Your task to perform on an android device: turn on showing notifications on the lock screen Image 0: 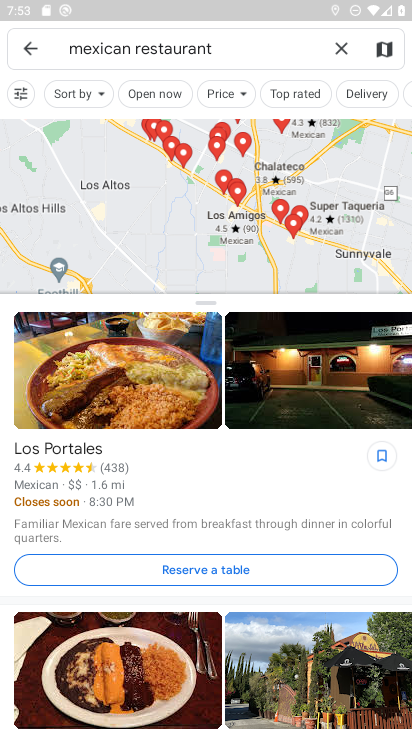
Step 0: press home button
Your task to perform on an android device: turn on showing notifications on the lock screen Image 1: 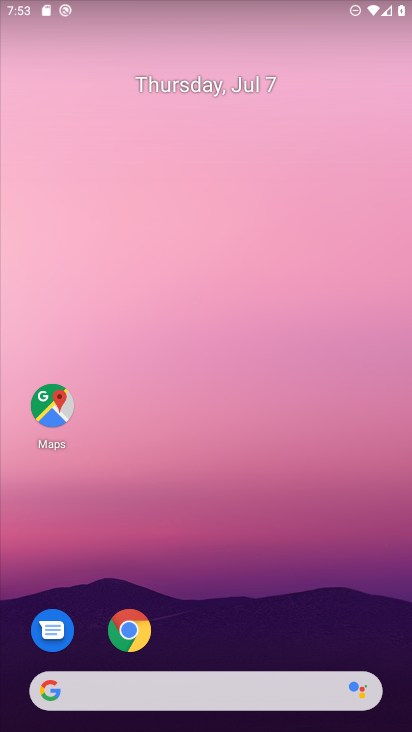
Step 1: drag from (224, 568) to (173, 153)
Your task to perform on an android device: turn on showing notifications on the lock screen Image 2: 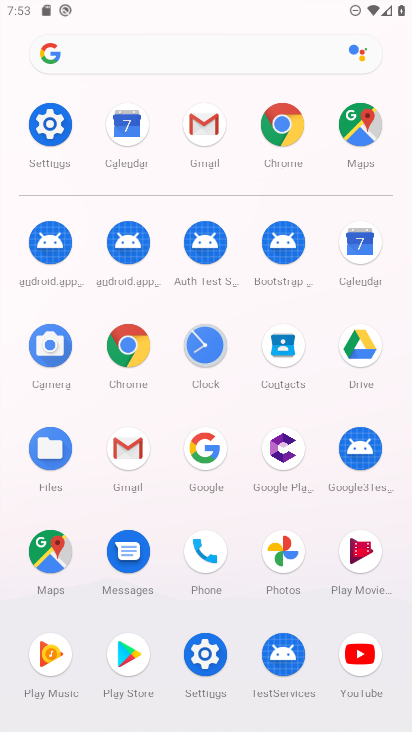
Step 2: click (59, 130)
Your task to perform on an android device: turn on showing notifications on the lock screen Image 3: 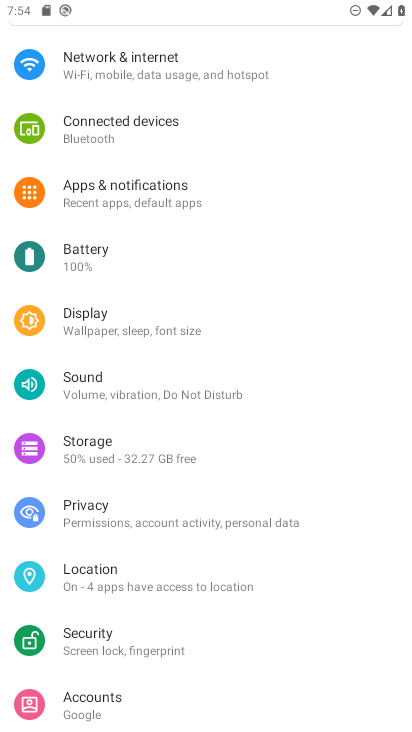
Step 3: click (140, 182)
Your task to perform on an android device: turn on showing notifications on the lock screen Image 4: 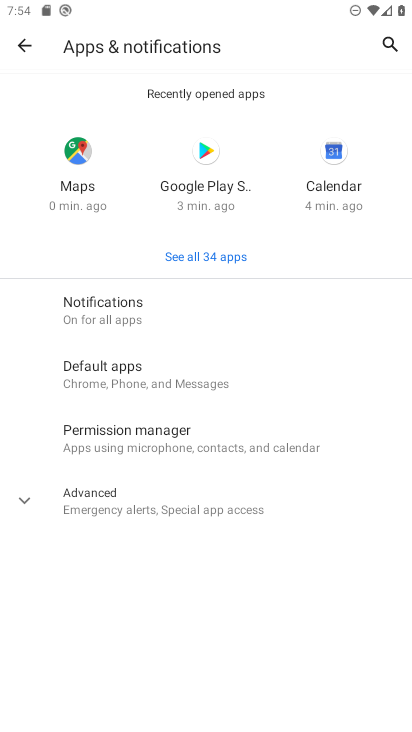
Step 4: click (101, 309)
Your task to perform on an android device: turn on showing notifications on the lock screen Image 5: 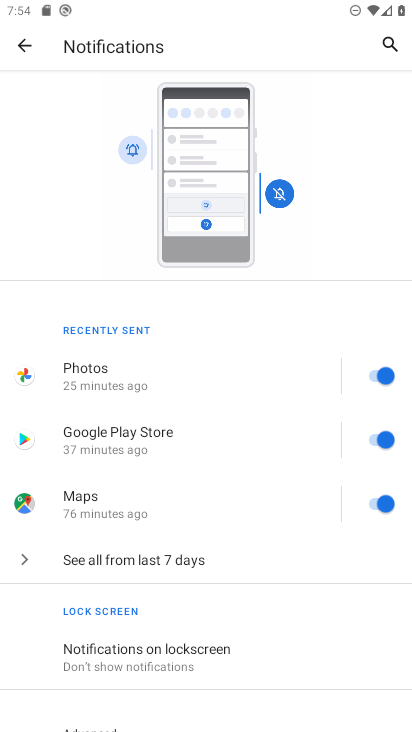
Step 5: click (195, 651)
Your task to perform on an android device: turn on showing notifications on the lock screen Image 6: 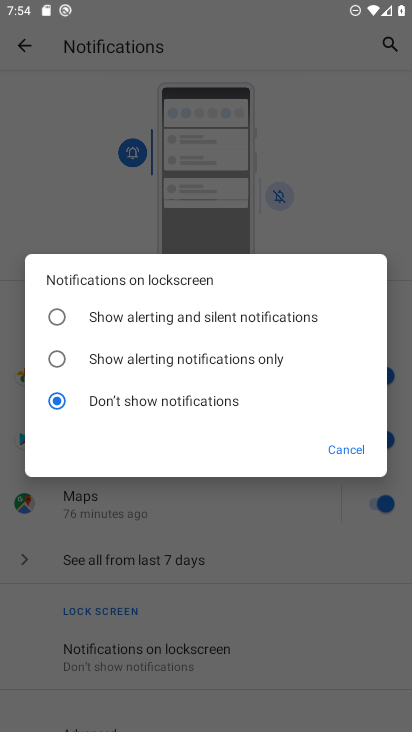
Step 6: click (56, 313)
Your task to perform on an android device: turn on showing notifications on the lock screen Image 7: 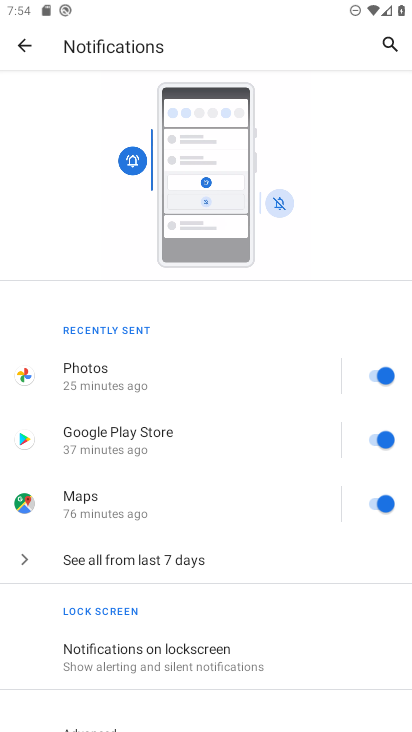
Step 7: task complete